Your task to perform on an android device: toggle pop-ups in chrome Image 0: 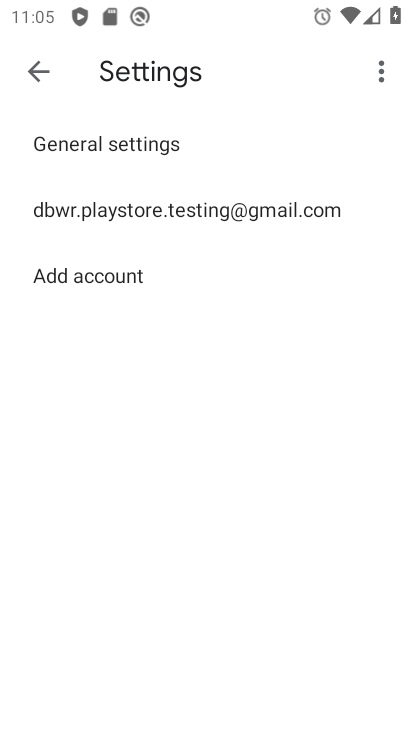
Step 0: press home button
Your task to perform on an android device: toggle pop-ups in chrome Image 1: 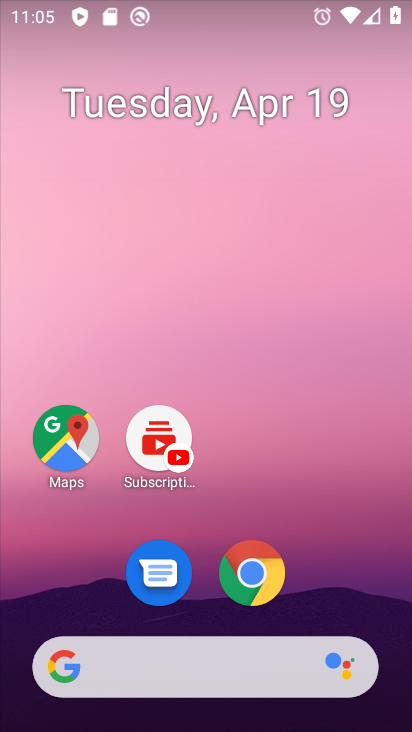
Step 1: click (258, 587)
Your task to perform on an android device: toggle pop-ups in chrome Image 2: 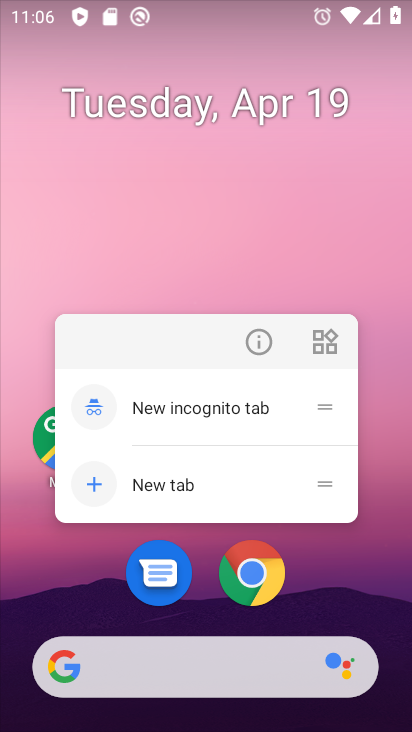
Step 2: click (245, 571)
Your task to perform on an android device: toggle pop-ups in chrome Image 3: 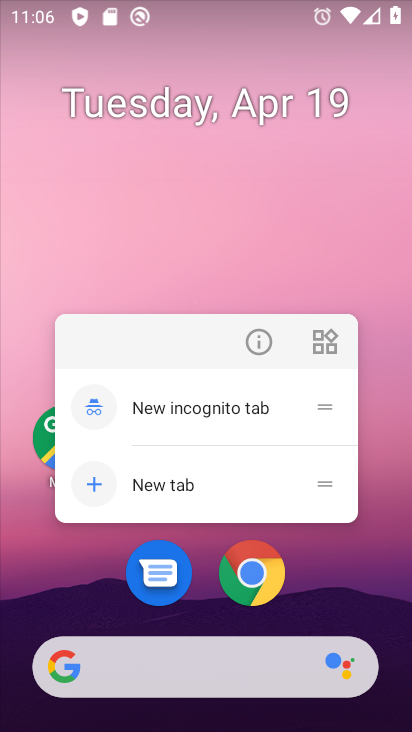
Step 3: click (254, 574)
Your task to perform on an android device: toggle pop-ups in chrome Image 4: 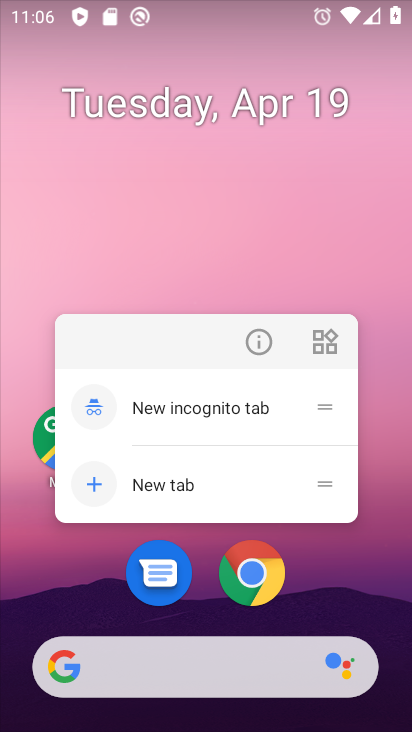
Step 4: click (254, 574)
Your task to perform on an android device: toggle pop-ups in chrome Image 5: 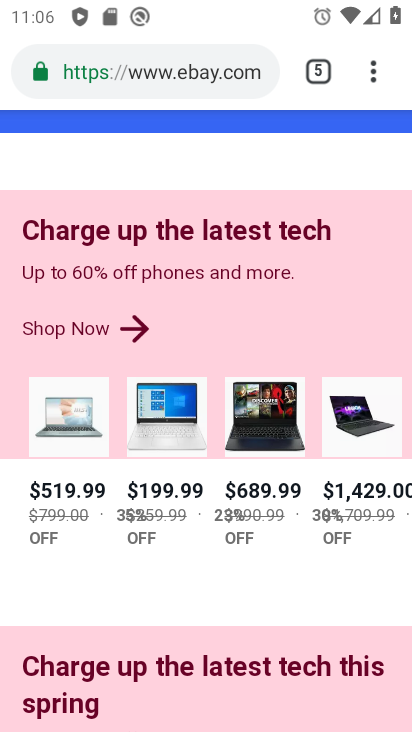
Step 5: click (368, 85)
Your task to perform on an android device: toggle pop-ups in chrome Image 6: 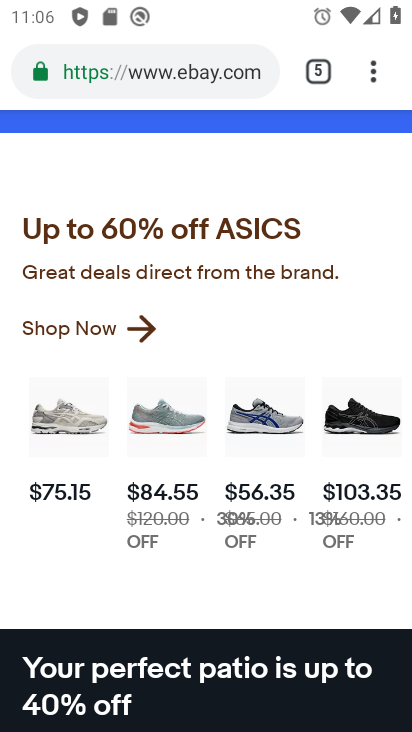
Step 6: drag from (373, 70) to (143, 561)
Your task to perform on an android device: toggle pop-ups in chrome Image 7: 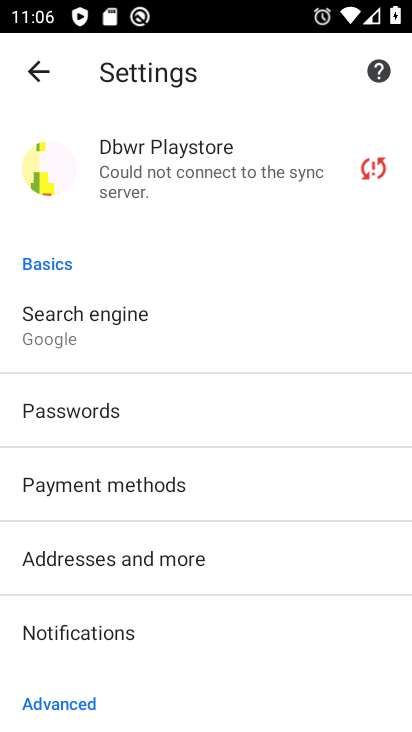
Step 7: drag from (141, 618) to (172, 311)
Your task to perform on an android device: toggle pop-ups in chrome Image 8: 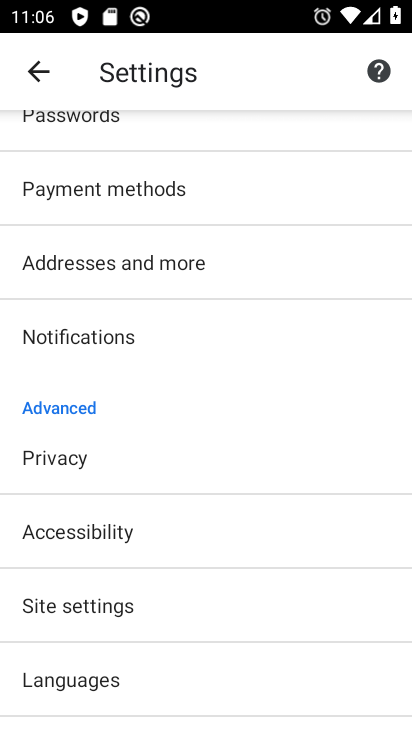
Step 8: click (84, 596)
Your task to perform on an android device: toggle pop-ups in chrome Image 9: 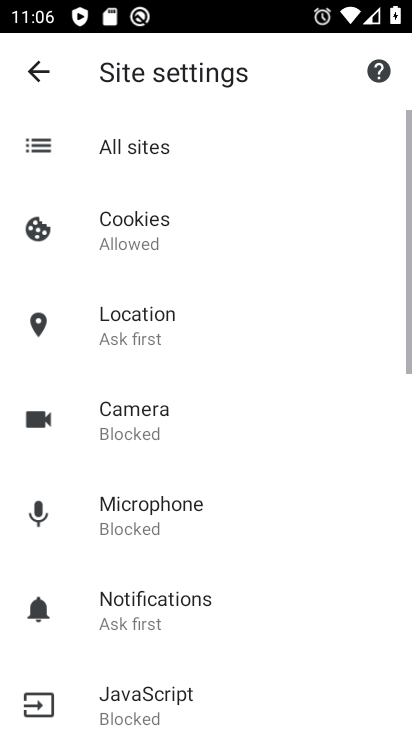
Step 9: drag from (130, 544) to (135, 273)
Your task to perform on an android device: toggle pop-ups in chrome Image 10: 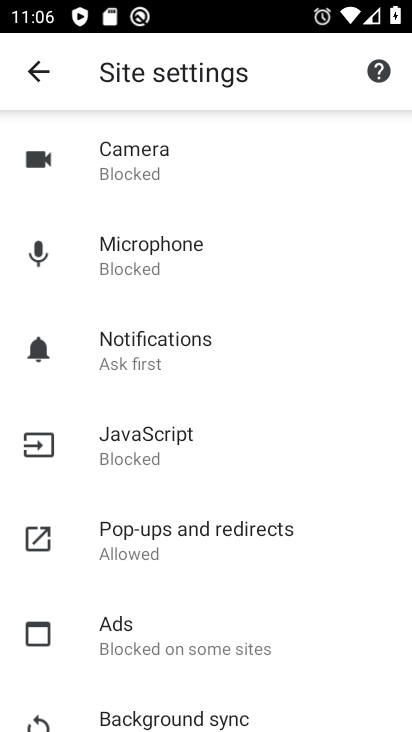
Step 10: click (150, 531)
Your task to perform on an android device: toggle pop-ups in chrome Image 11: 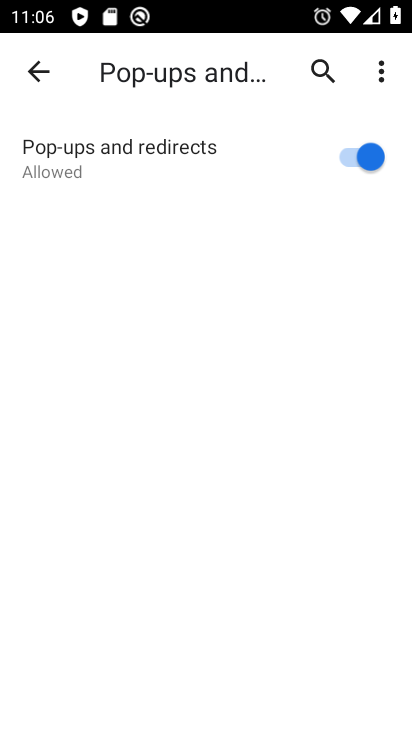
Step 11: click (362, 157)
Your task to perform on an android device: toggle pop-ups in chrome Image 12: 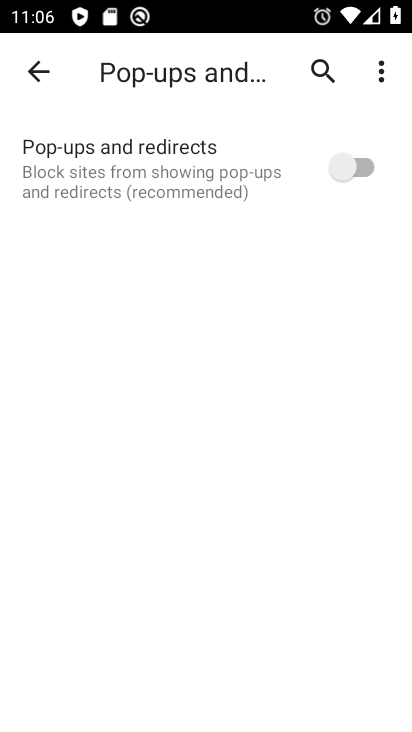
Step 12: task complete